Your task to perform on an android device: delete a single message in the gmail app Image 0: 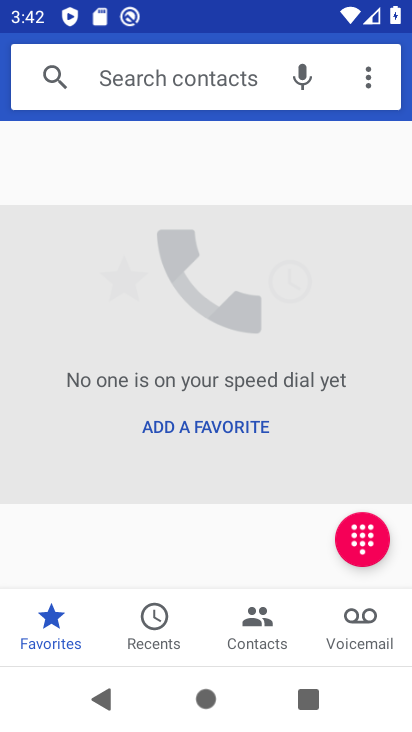
Step 0: press home button
Your task to perform on an android device: delete a single message in the gmail app Image 1: 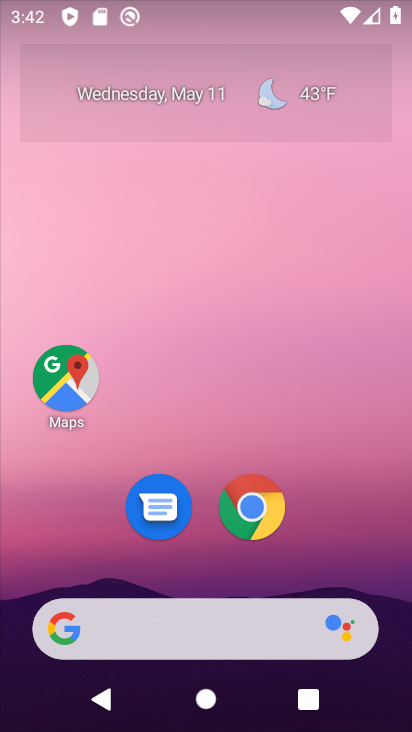
Step 1: drag from (392, 631) to (303, 164)
Your task to perform on an android device: delete a single message in the gmail app Image 2: 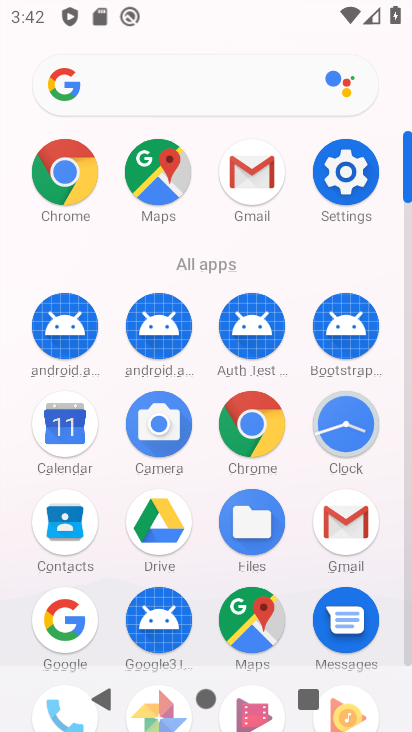
Step 2: click (405, 652)
Your task to perform on an android device: delete a single message in the gmail app Image 3: 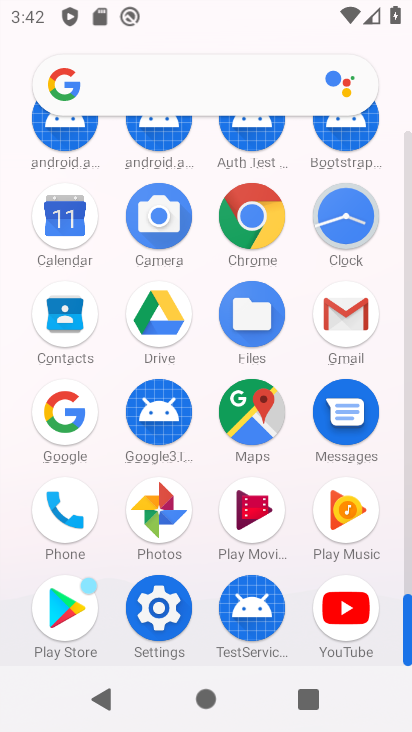
Step 3: click (343, 315)
Your task to perform on an android device: delete a single message in the gmail app Image 4: 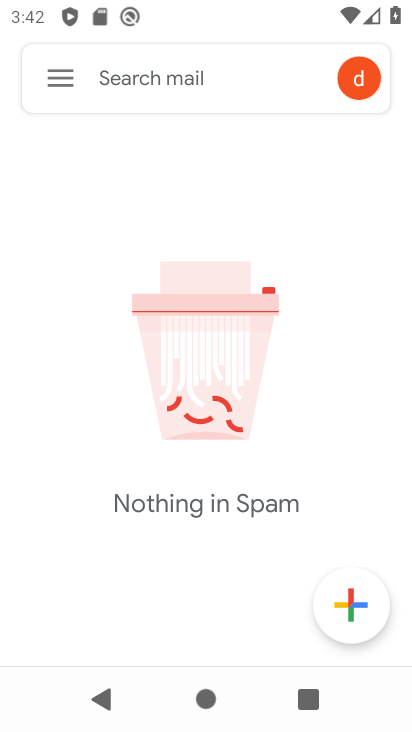
Step 4: click (57, 73)
Your task to perform on an android device: delete a single message in the gmail app Image 5: 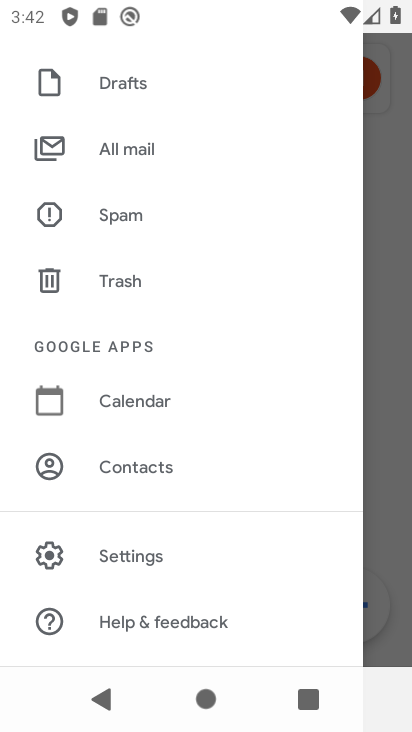
Step 5: click (117, 147)
Your task to perform on an android device: delete a single message in the gmail app Image 6: 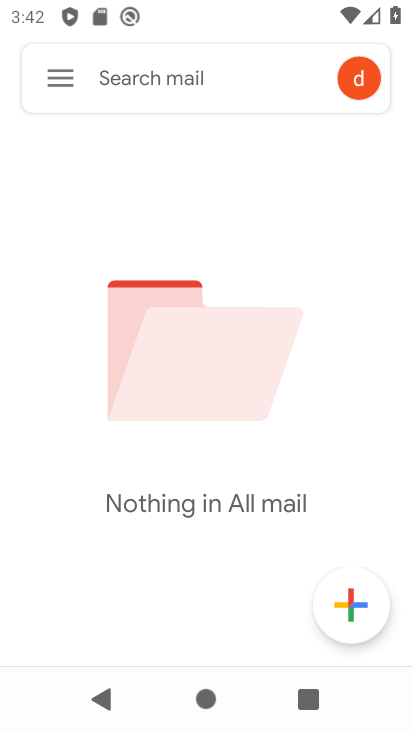
Step 6: task complete